Your task to perform on an android device: Open Maps and search for coffee Image 0: 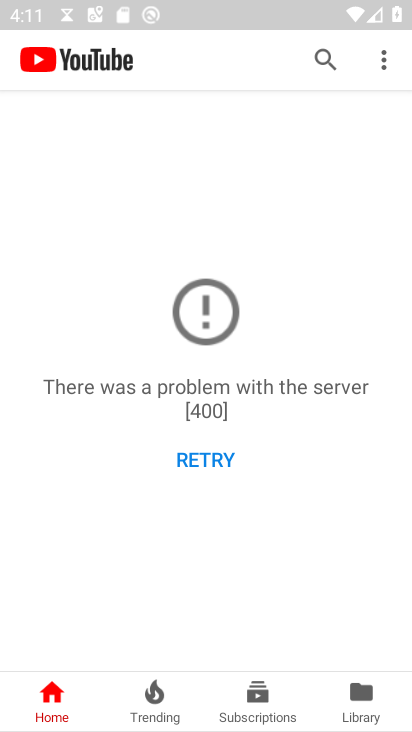
Step 0: press home button
Your task to perform on an android device: Open Maps and search for coffee Image 1: 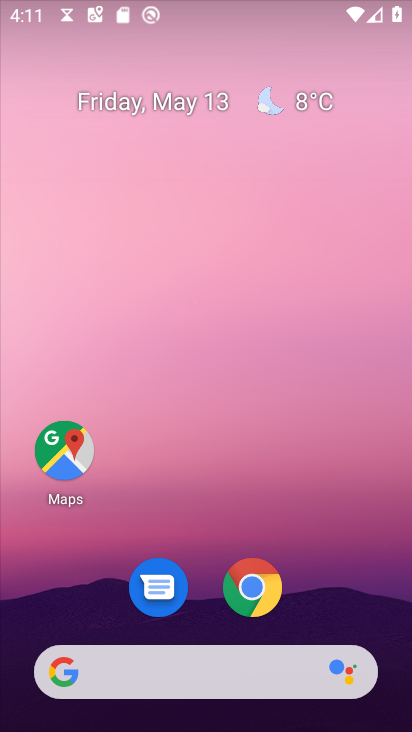
Step 1: click (61, 458)
Your task to perform on an android device: Open Maps and search for coffee Image 2: 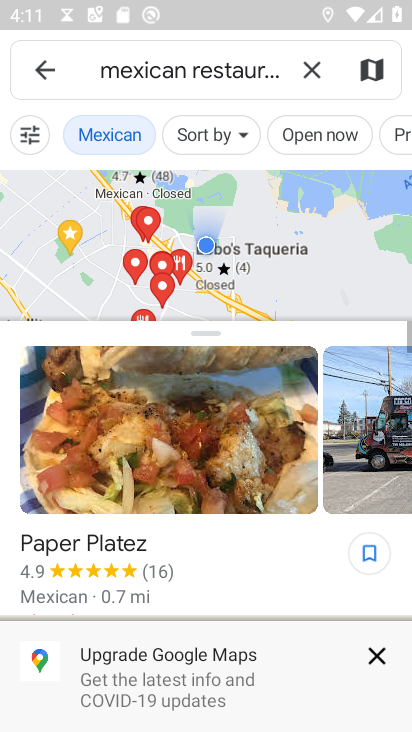
Step 2: click (306, 63)
Your task to perform on an android device: Open Maps and search for coffee Image 3: 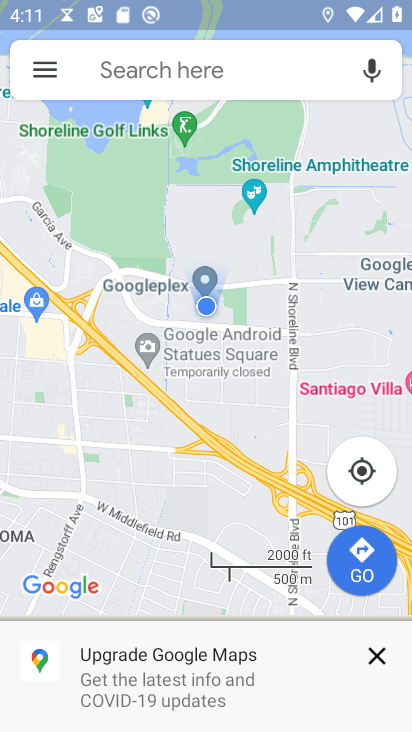
Step 3: click (250, 73)
Your task to perform on an android device: Open Maps and search for coffee Image 4: 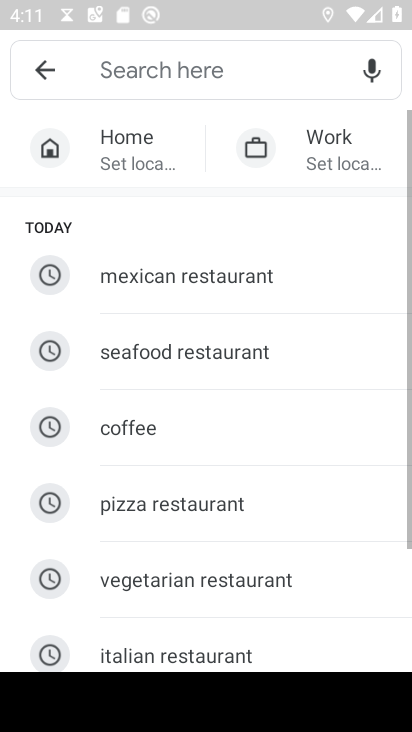
Step 4: click (200, 435)
Your task to perform on an android device: Open Maps and search for coffee Image 5: 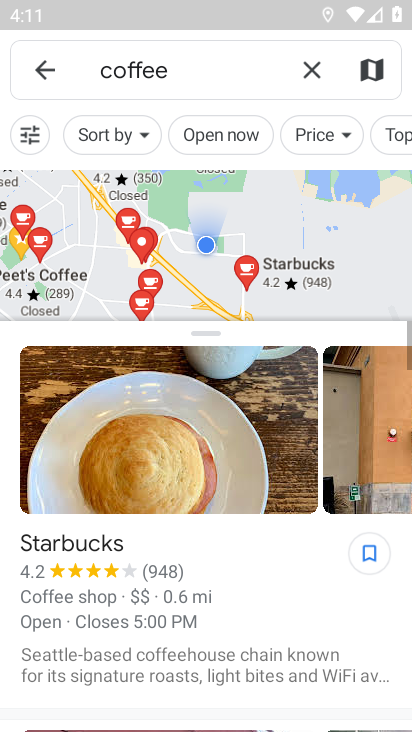
Step 5: task complete